Your task to perform on an android device: Toggle the flashlight Image 0: 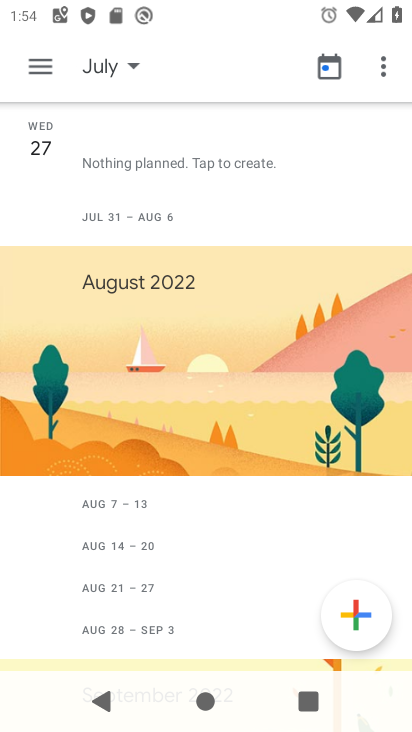
Step 0: press home button
Your task to perform on an android device: Toggle the flashlight Image 1: 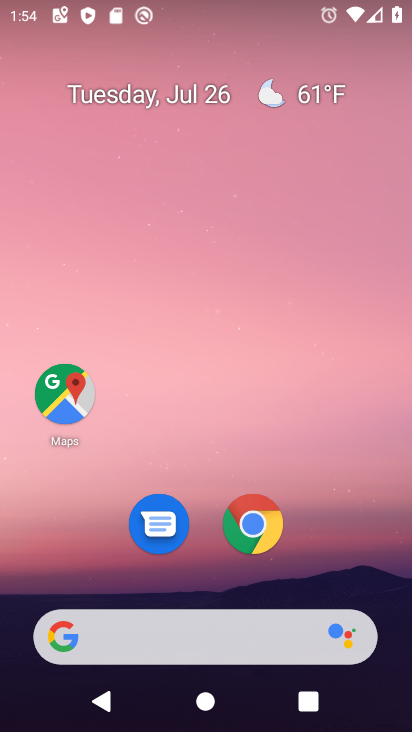
Step 1: task complete